Your task to perform on an android device: change the upload size in google photos Image 0: 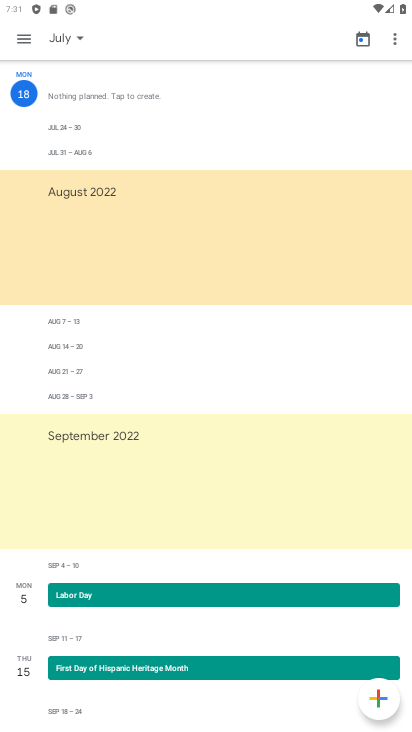
Step 0: press back button
Your task to perform on an android device: change the upload size in google photos Image 1: 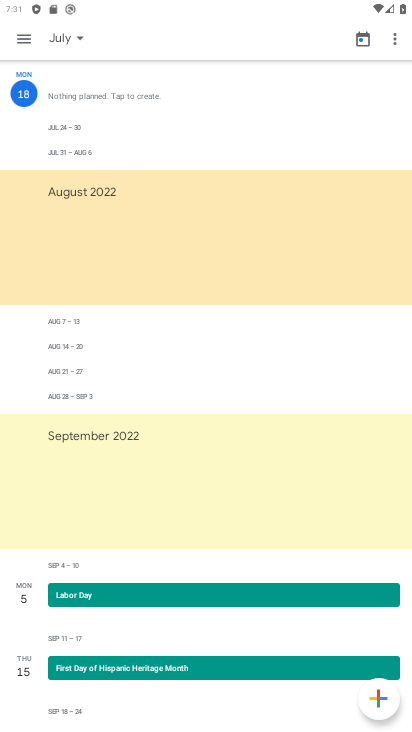
Step 1: press back button
Your task to perform on an android device: change the upload size in google photos Image 2: 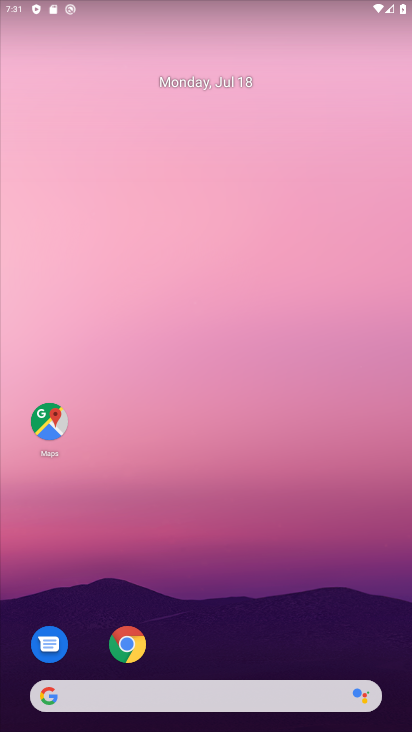
Step 2: press back button
Your task to perform on an android device: change the upload size in google photos Image 3: 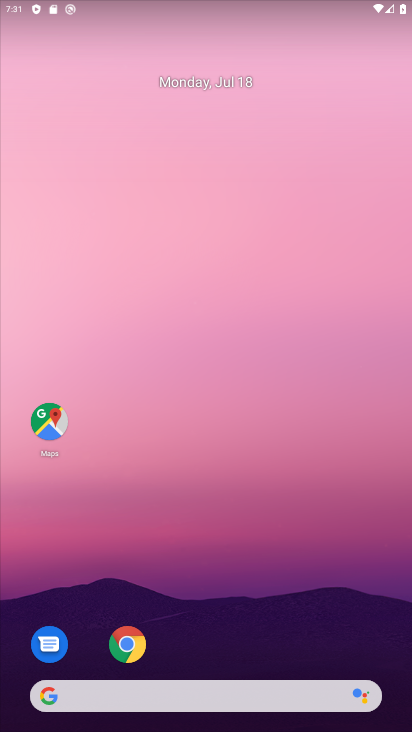
Step 3: press home button
Your task to perform on an android device: change the upload size in google photos Image 4: 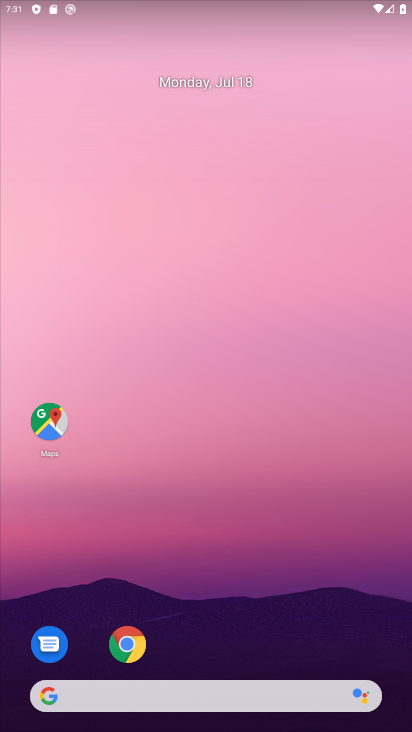
Step 4: drag from (294, 652) to (278, 102)
Your task to perform on an android device: change the upload size in google photos Image 5: 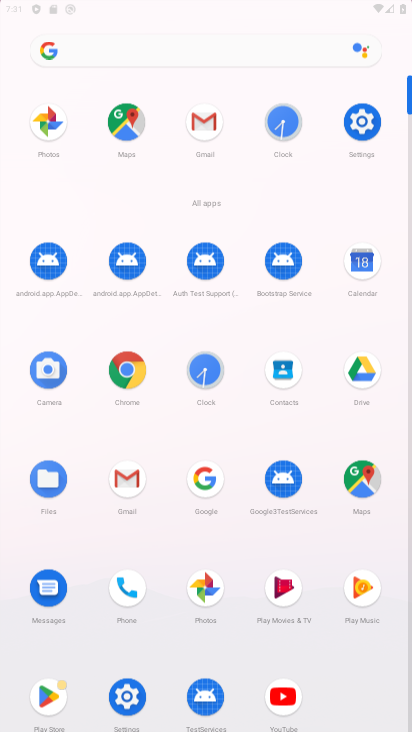
Step 5: drag from (192, 615) to (194, 109)
Your task to perform on an android device: change the upload size in google photos Image 6: 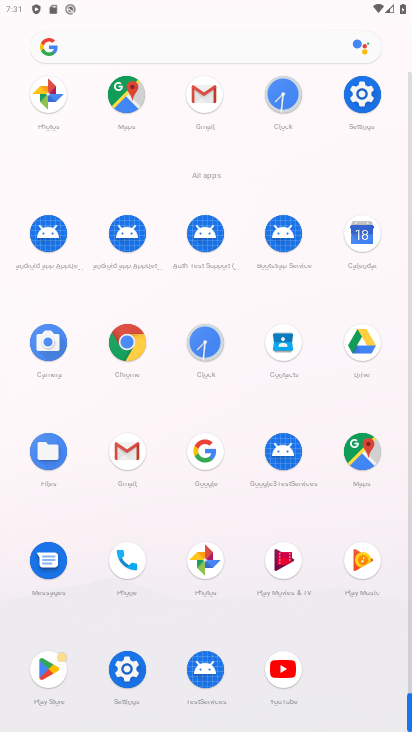
Step 6: click (203, 563)
Your task to perform on an android device: change the upload size in google photos Image 7: 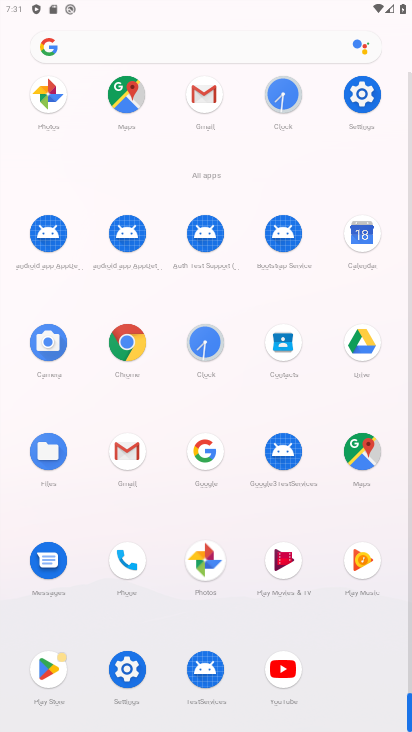
Step 7: click (203, 563)
Your task to perform on an android device: change the upload size in google photos Image 8: 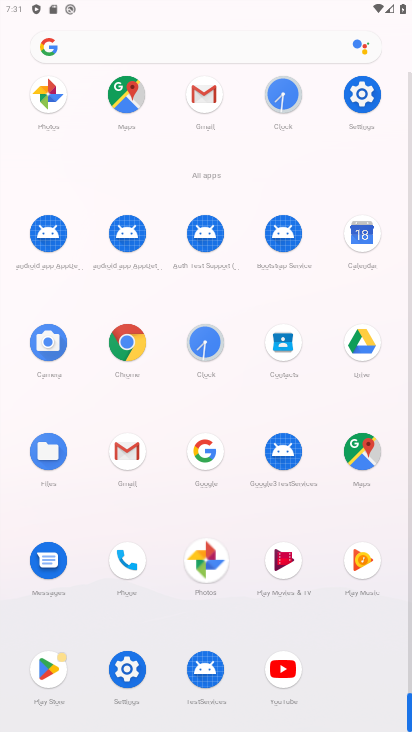
Step 8: click (203, 563)
Your task to perform on an android device: change the upload size in google photos Image 9: 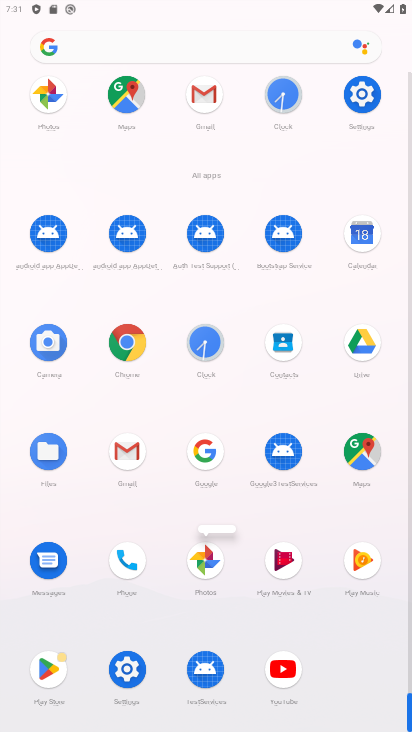
Step 9: click (212, 557)
Your task to perform on an android device: change the upload size in google photos Image 10: 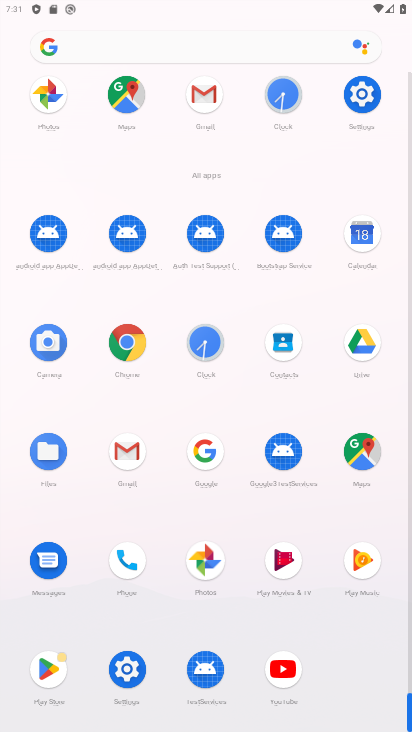
Step 10: click (212, 557)
Your task to perform on an android device: change the upload size in google photos Image 11: 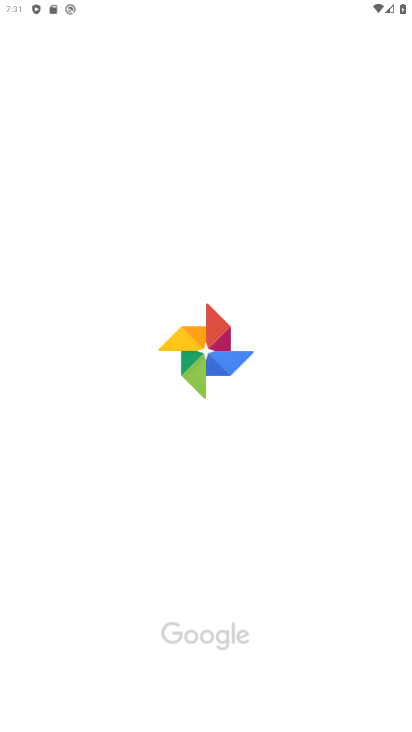
Step 11: click (213, 558)
Your task to perform on an android device: change the upload size in google photos Image 12: 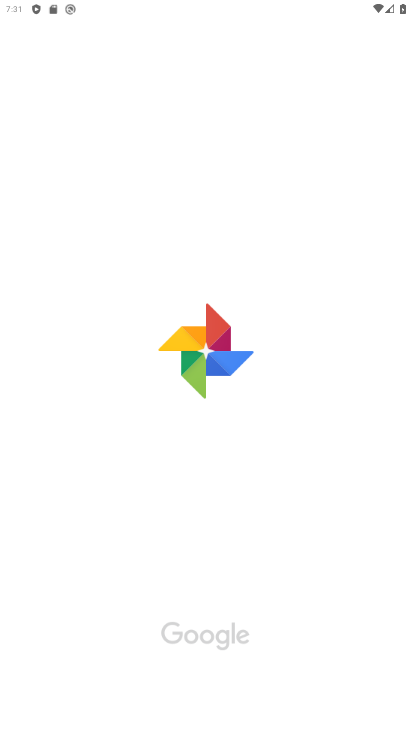
Step 12: click (214, 560)
Your task to perform on an android device: change the upload size in google photos Image 13: 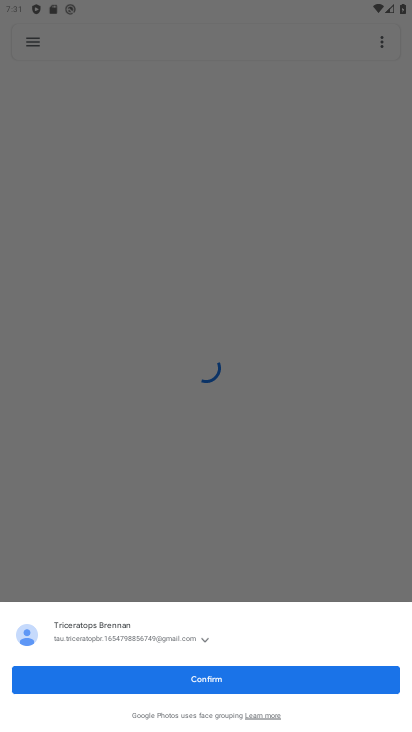
Step 13: click (31, 40)
Your task to perform on an android device: change the upload size in google photos Image 14: 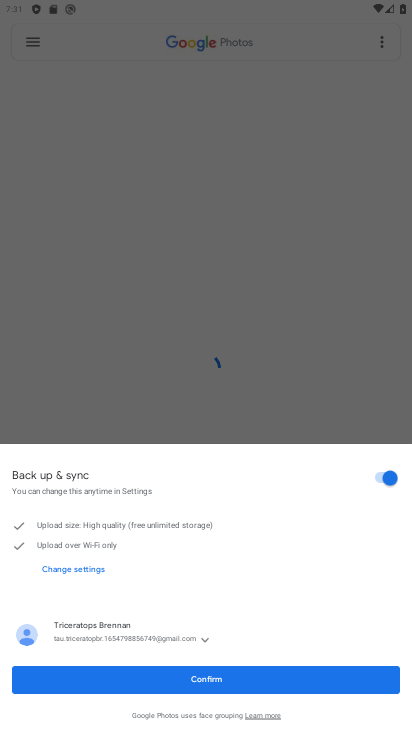
Step 14: click (32, 40)
Your task to perform on an android device: change the upload size in google photos Image 15: 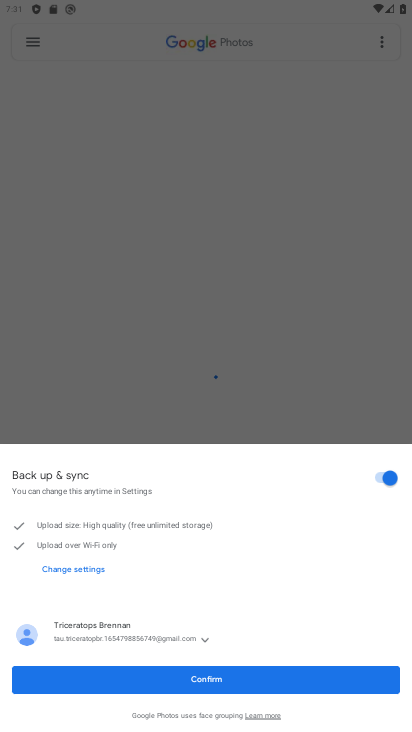
Step 15: click (33, 41)
Your task to perform on an android device: change the upload size in google photos Image 16: 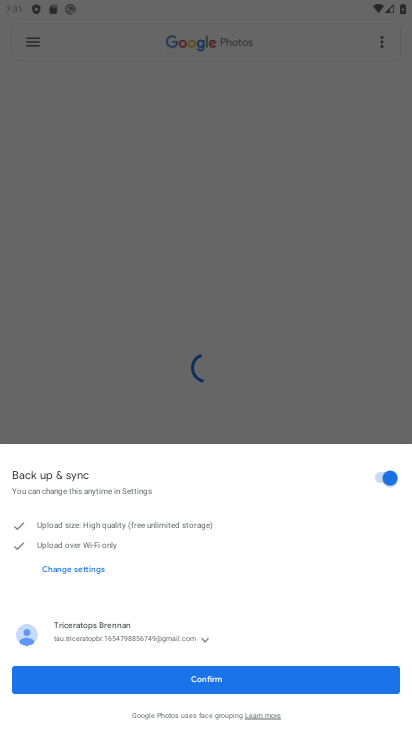
Step 16: click (34, 42)
Your task to perform on an android device: change the upload size in google photos Image 17: 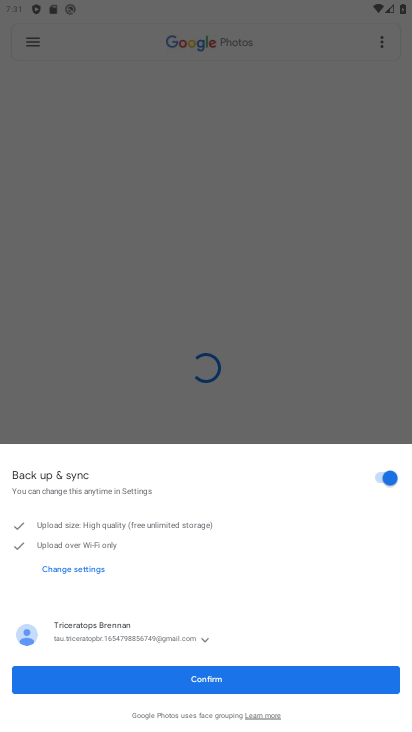
Step 17: click (35, 43)
Your task to perform on an android device: change the upload size in google photos Image 18: 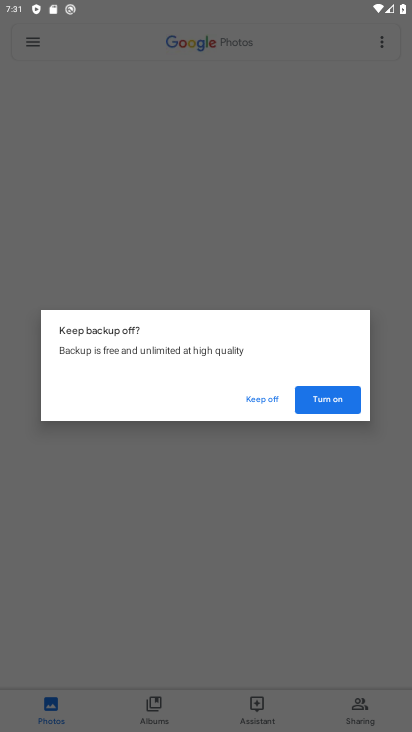
Step 18: click (323, 400)
Your task to perform on an android device: change the upload size in google photos Image 19: 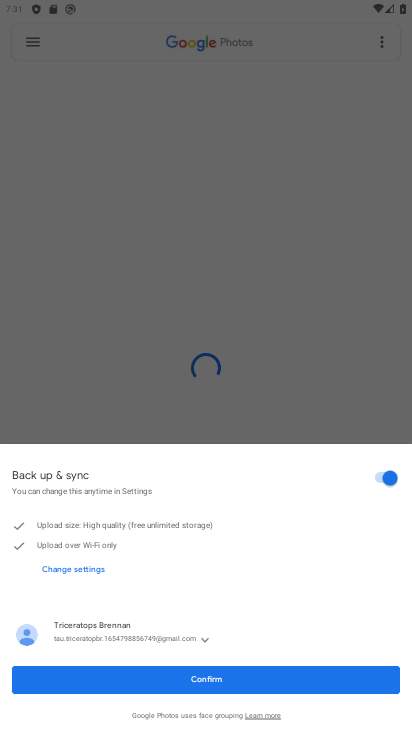
Step 19: click (219, 681)
Your task to perform on an android device: change the upload size in google photos Image 20: 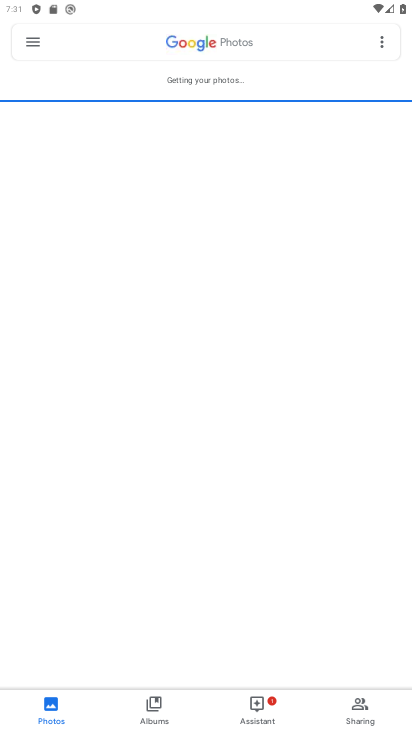
Step 20: click (36, 39)
Your task to perform on an android device: change the upload size in google photos Image 21: 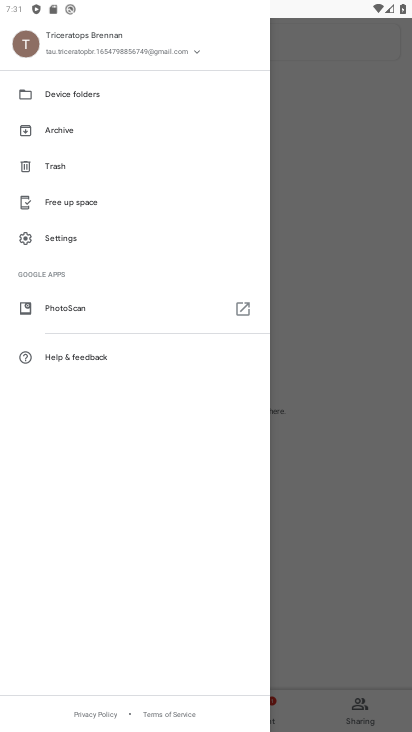
Step 21: click (54, 238)
Your task to perform on an android device: change the upload size in google photos Image 22: 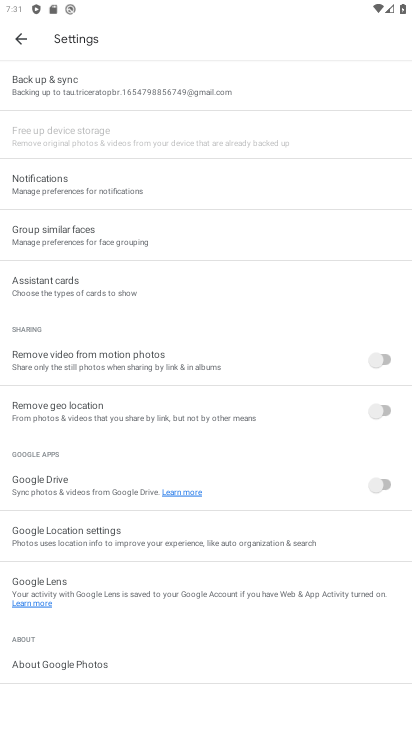
Step 22: click (50, 75)
Your task to perform on an android device: change the upload size in google photos Image 23: 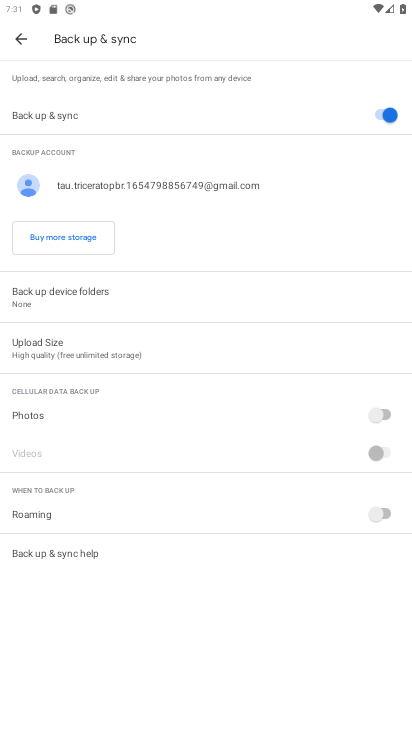
Step 23: click (63, 339)
Your task to perform on an android device: change the upload size in google photos Image 24: 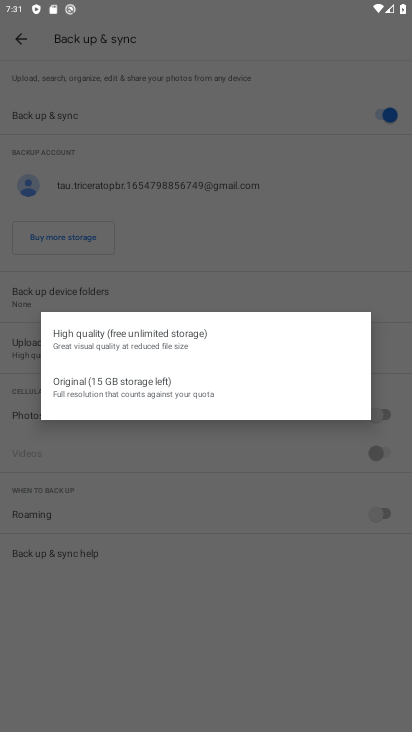
Step 24: click (74, 378)
Your task to perform on an android device: change the upload size in google photos Image 25: 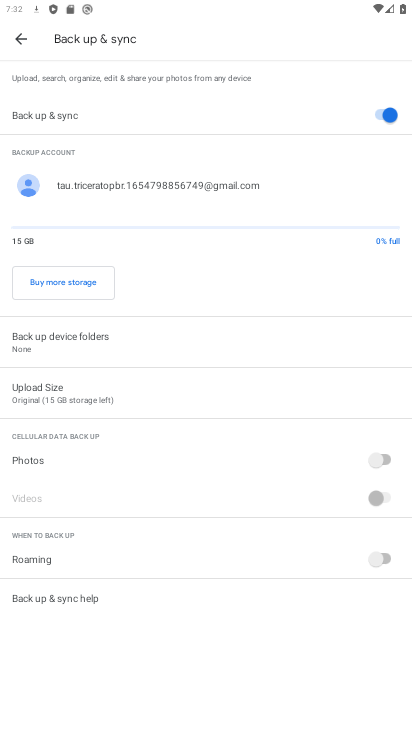
Step 25: task complete